Your task to perform on an android device: Play the last video I watched on Youtube Image 0: 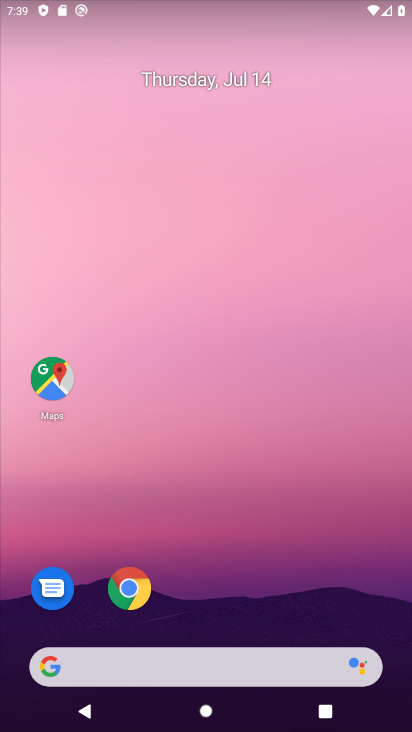
Step 0: drag from (36, 679) to (153, 381)
Your task to perform on an android device: Play the last video I watched on Youtube Image 1: 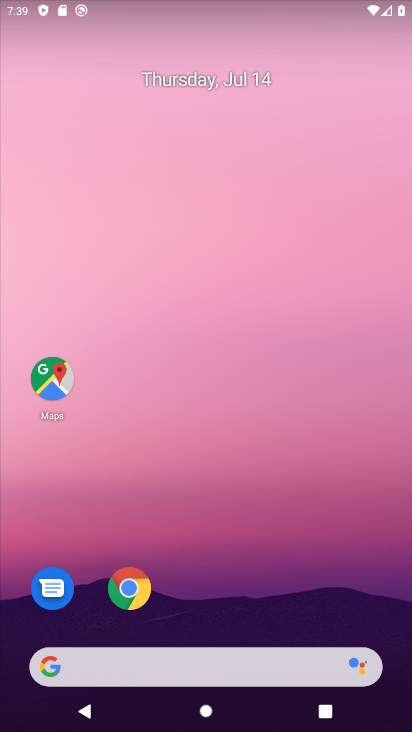
Step 1: drag from (101, 476) to (226, 180)
Your task to perform on an android device: Play the last video I watched on Youtube Image 2: 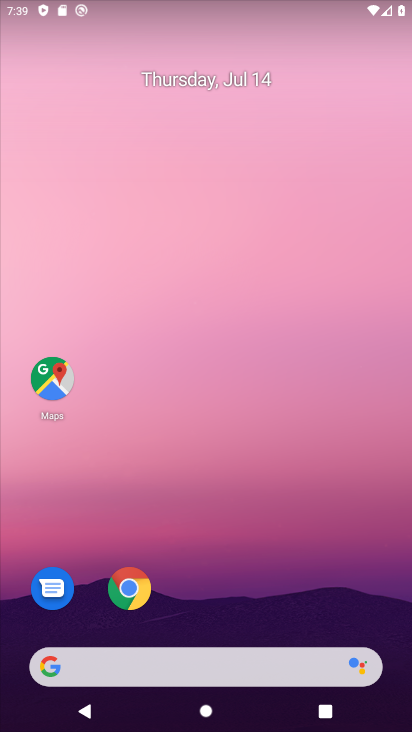
Step 2: drag from (14, 706) to (203, 30)
Your task to perform on an android device: Play the last video I watched on Youtube Image 3: 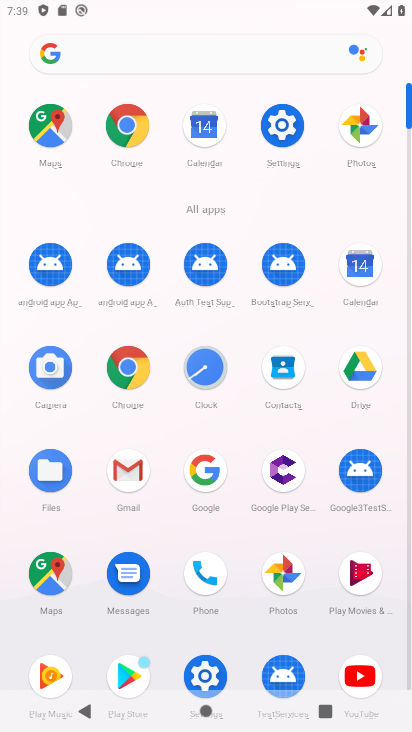
Step 3: click (358, 665)
Your task to perform on an android device: Play the last video I watched on Youtube Image 4: 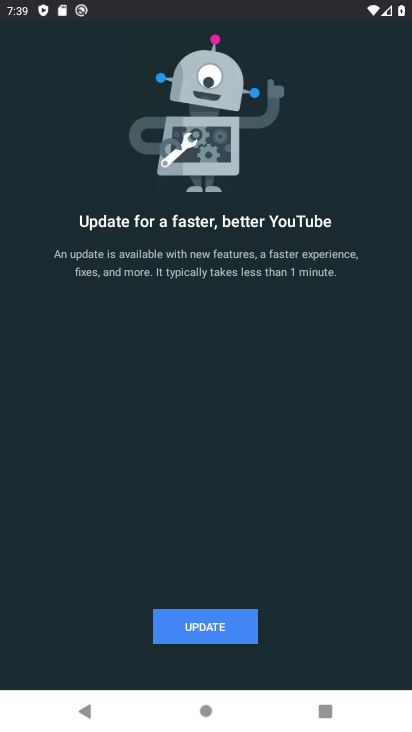
Step 4: click (214, 625)
Your task to perform on an android device: Play the last video I watched on Youtube Image 5: 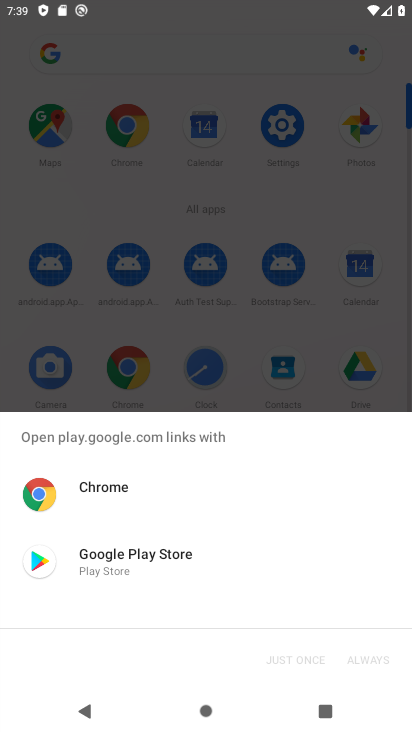
Step 5: click (112, 562)
Your task to perform on an android device: Play the last video I watched on Youtube Image 6: 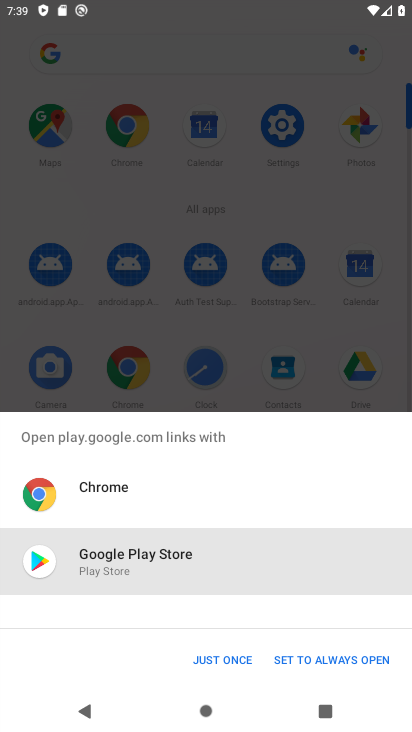
Step 6: click (238, 660)
Your task to perform on an android device: Play the last video I watched on Youtube Image 7: 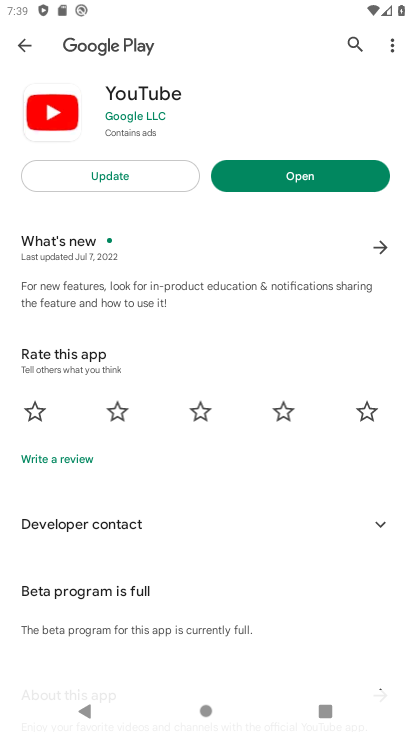
Step 7: click (256, 189)
Your task to perform on an android device: Play the last video I watched on Youtube Image 8: 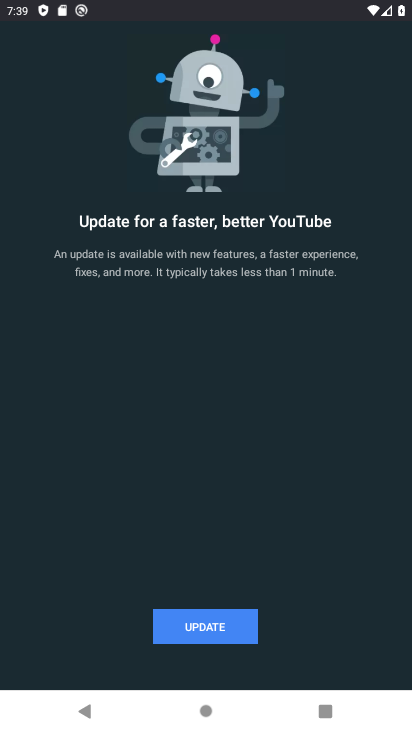
Step 8: task complete